Your task to perform on an android device: refresh tabs in the chrome app Image 0: 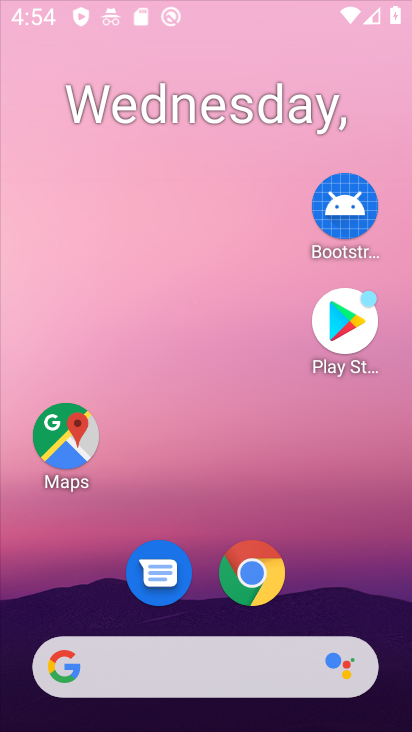
Step 0: click (263, 572)
Your task to perform on an android device: refresh tabs in the chrome app Image 1: 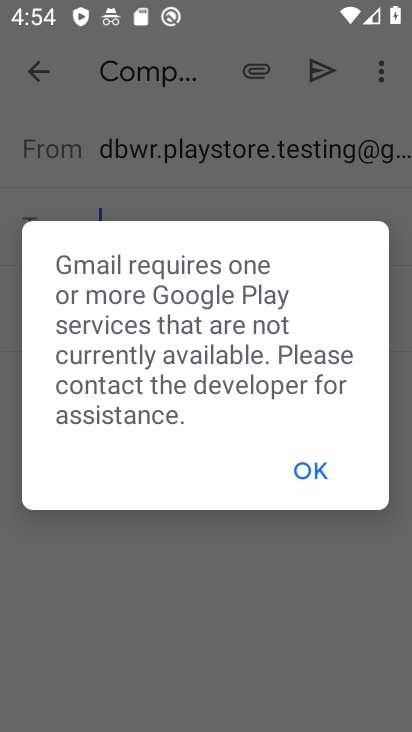
Step 1: press home button
Your task to perform on an android device: refresh tabs in the chrome app Image 2: 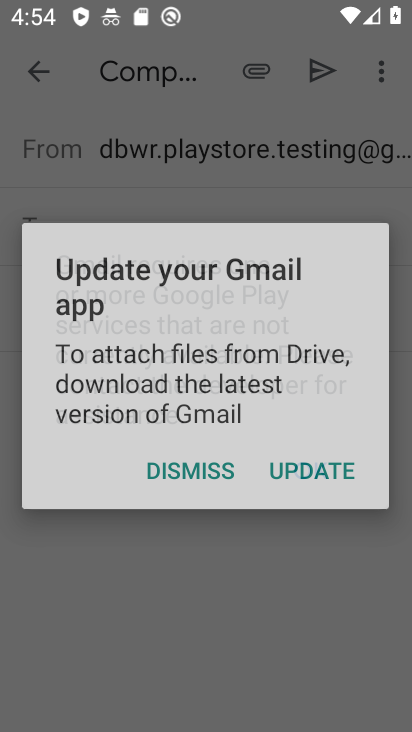
Step 2: press home button
Your task to perform on an android device: refresh tabs in the chrome app Image 3: 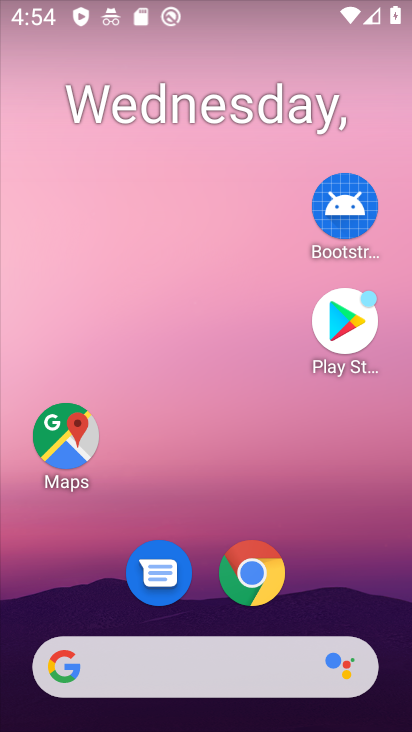
Step 3: click (254, 573)
Your task to perform on an android device: refresh tabs in the chrome app Image 4: 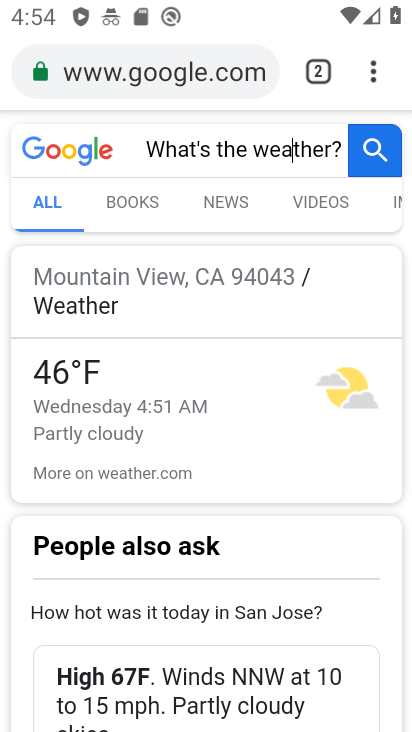
Step 4: click (370, 69)
Your task to perform on an android device: refresh tabs in the chrome app Image 5: 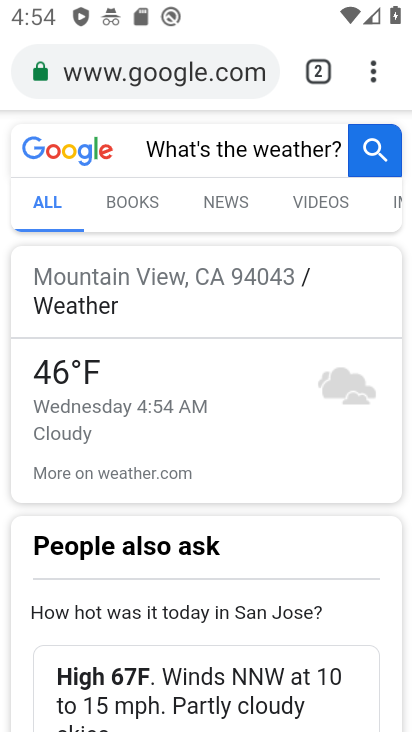
Step 5: task complete